Your task to perform on an android device: create a new album in the google photos Image 0: 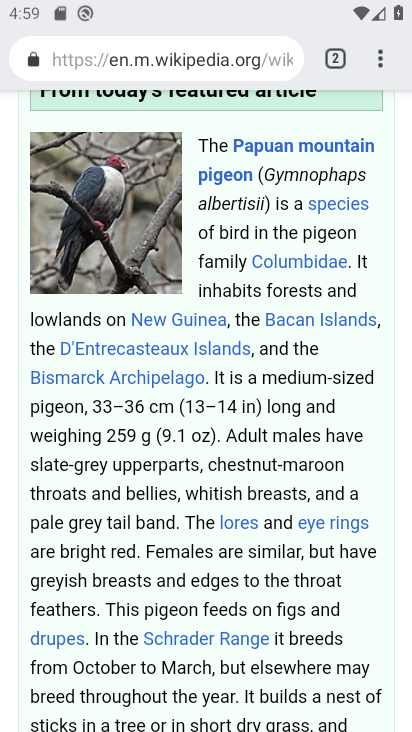
Step 0: press home button
Your task to perform on an android device: create a new album in the google photos Image 1: 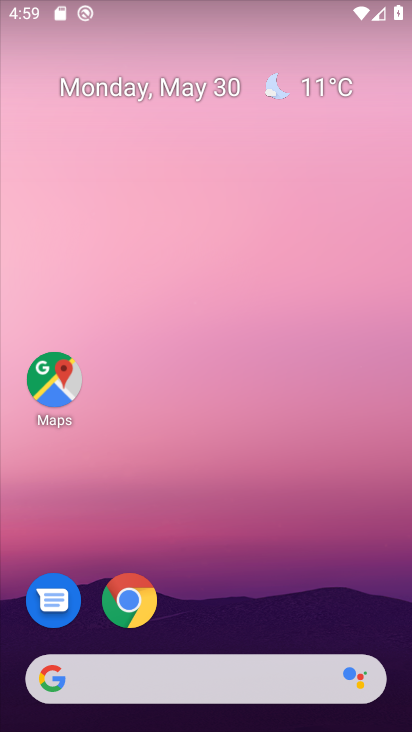
Step 1: drag from (309, 582) to (317, 41)
Your task to perform on an android device: create a new album in the google photos Image 2: 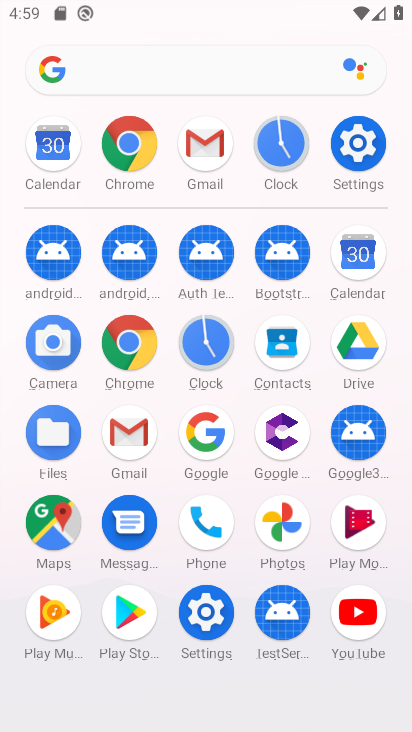
Step 2: click (275, 527)
Your task to perform on an android device: create a new album in the google photos Image 3: 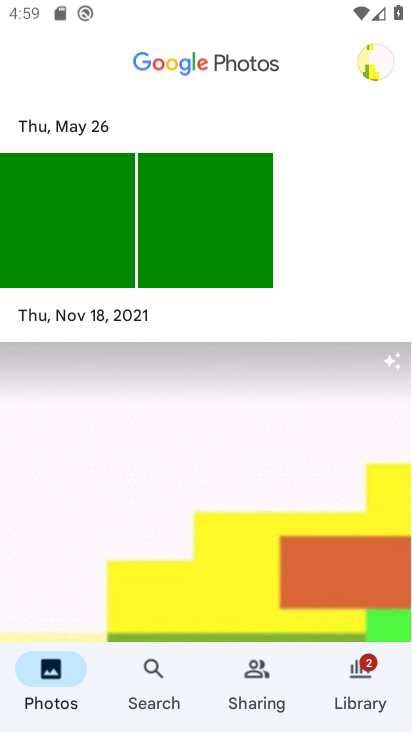
Step 3: task complete